Your task to perform on an android device: set the stopwatch Image 0: 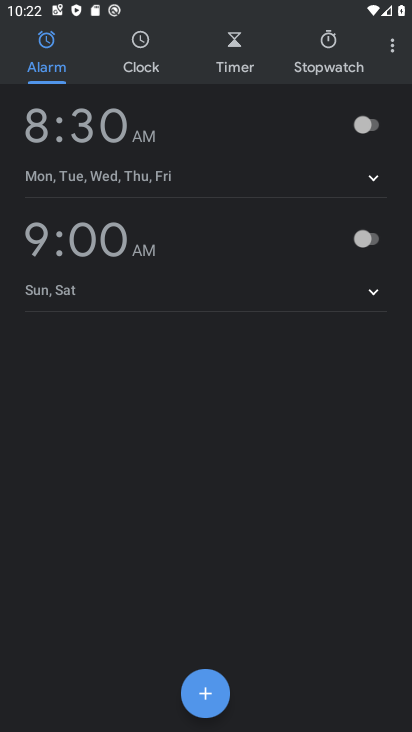
Step 0: press home button
Your task to perform on an android device: set the stopwatch Image 1: 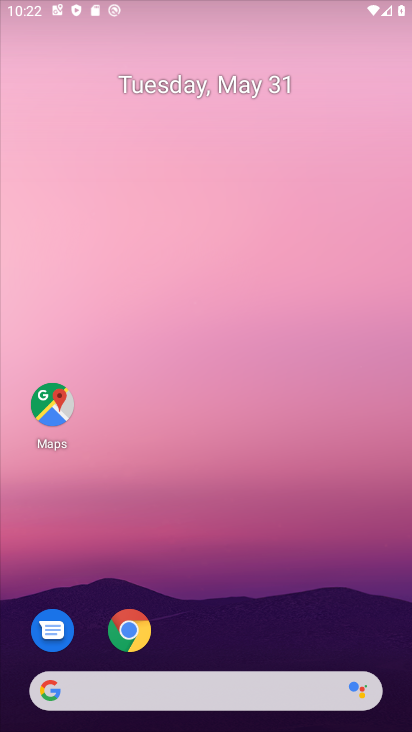
Step 1: drag from (223, 635) to (285, 163)
Your task to perform on an android device: set the stopwatch Image 2: 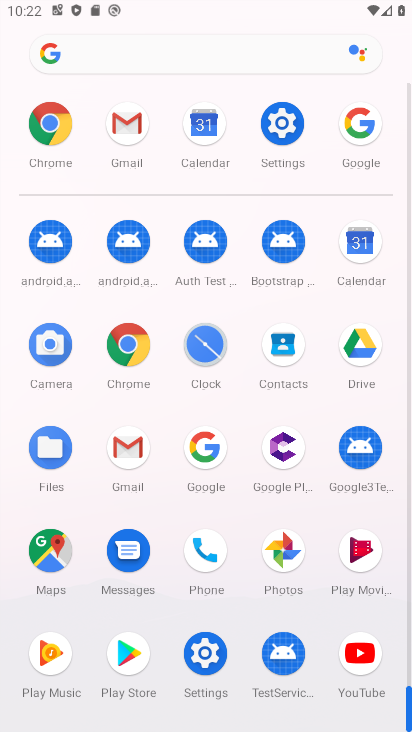
Step 2: click (210, 358)
Your task to perform on an android device: set the stopwatch Image 3: 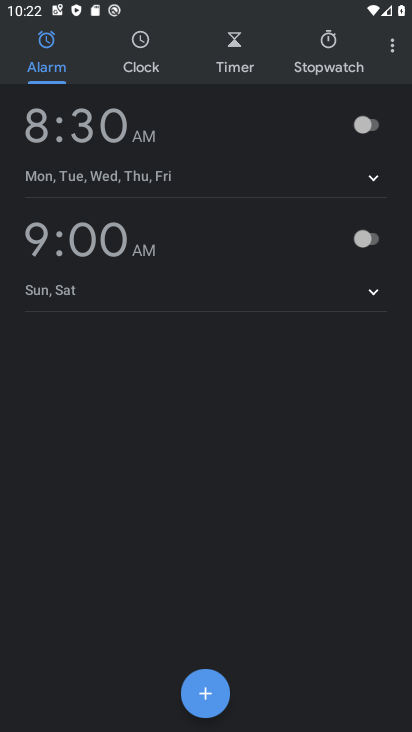
Step 3: click (346, 71)
Your task to perform on an android device: set the stopwatch Image 4: 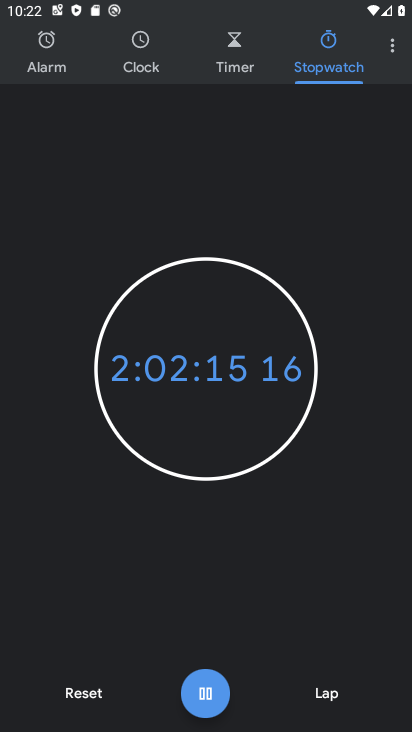
Step 4: task complete